Your task to perform on an android device: Go to sound settings Image 0: 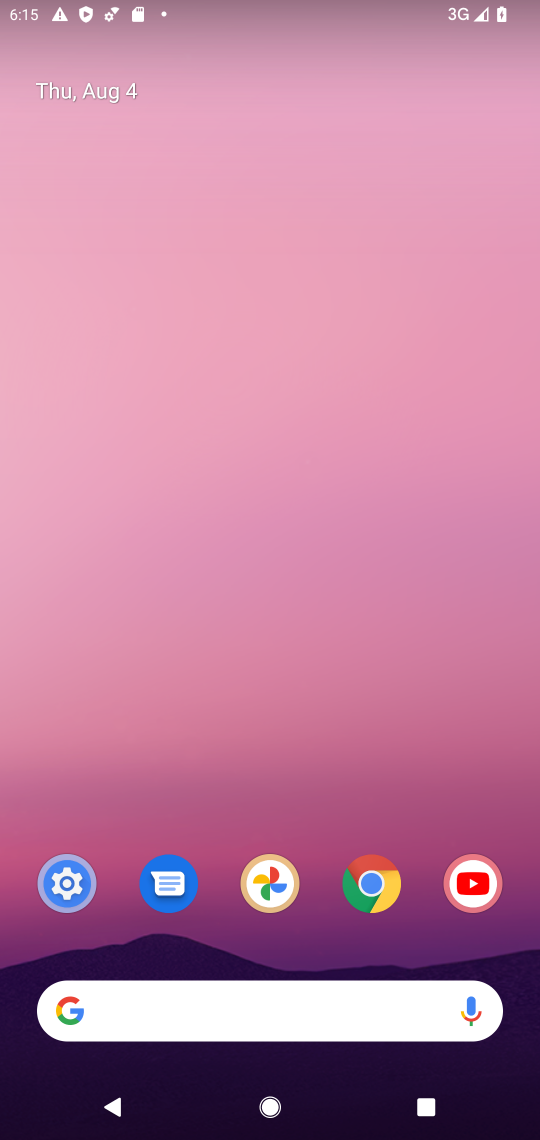
Step 0: drag from (326, 837) to (343, 148)
Your task to perform on an android device: Go to sound settings Image 1: 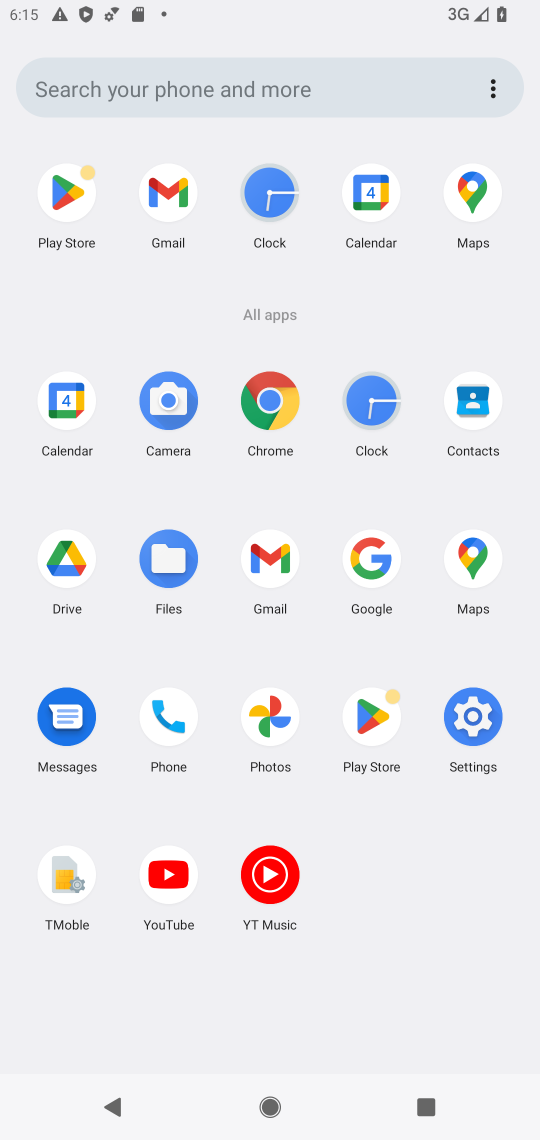
Step 1: click (492, 713)
Your task to perform on an android device: Go to sound settings Image 2: 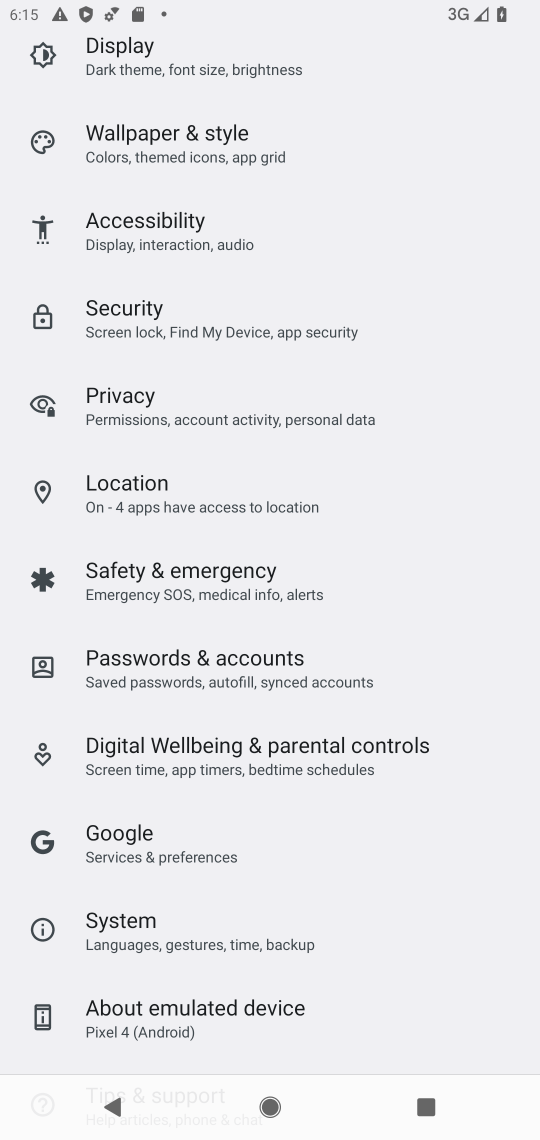
Step 2: drag from (266, 118) to (296, 874)
Your task to perform on an android device: Go to sound settings Image 3: 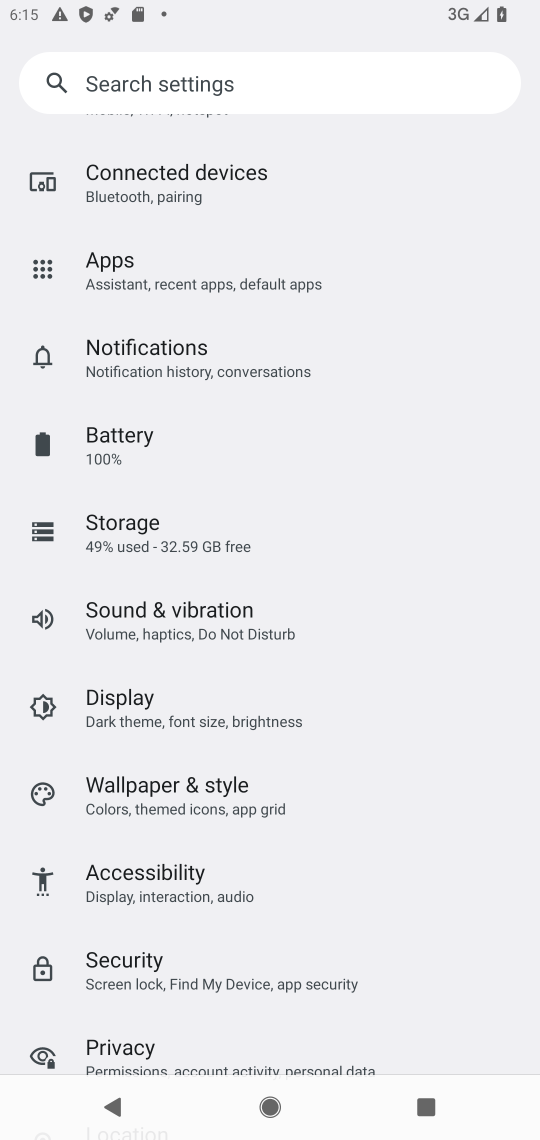
Step 3: click (185, 638)
Your task to perform on an android device: Go to sound settings Image 4: 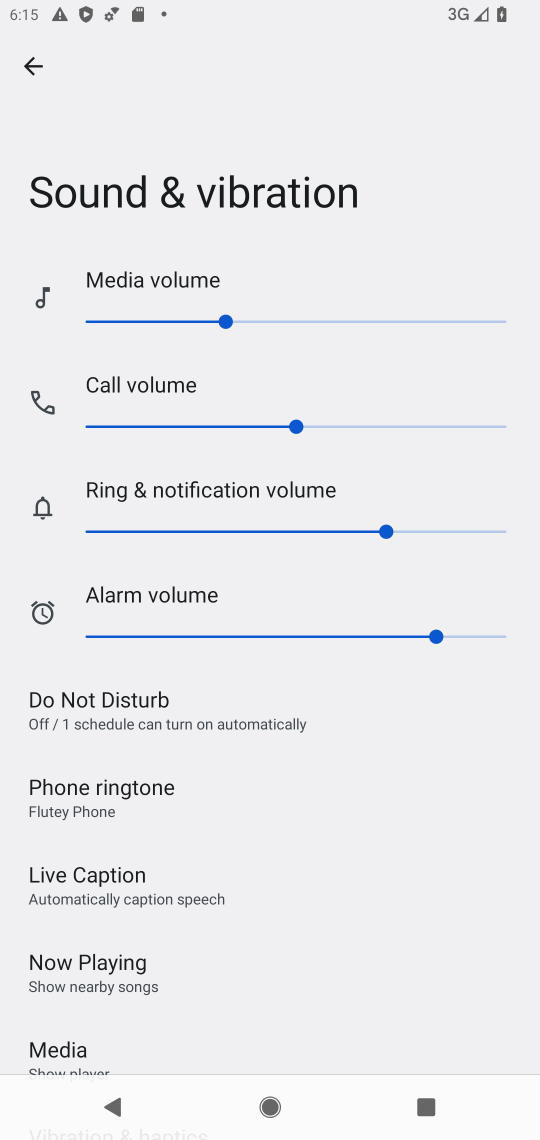
Step 4: task complete